Your task to perform on an android device: Go to ESPN.com Image 0: 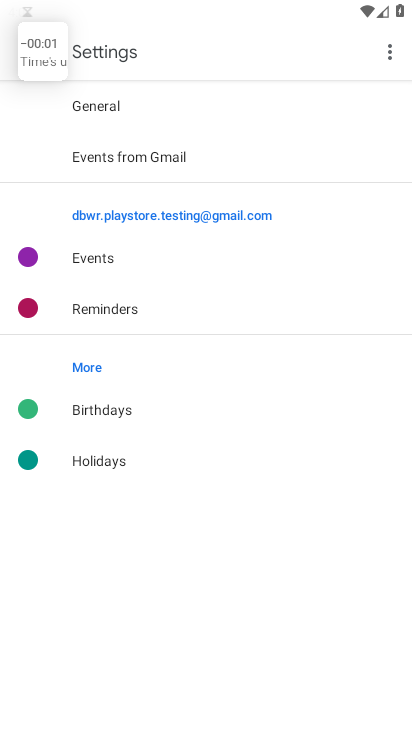
Step 0: drag from (209, 654) to (193, 510)
Your task to perform on an android device: Go to ESPN.com Image 1: 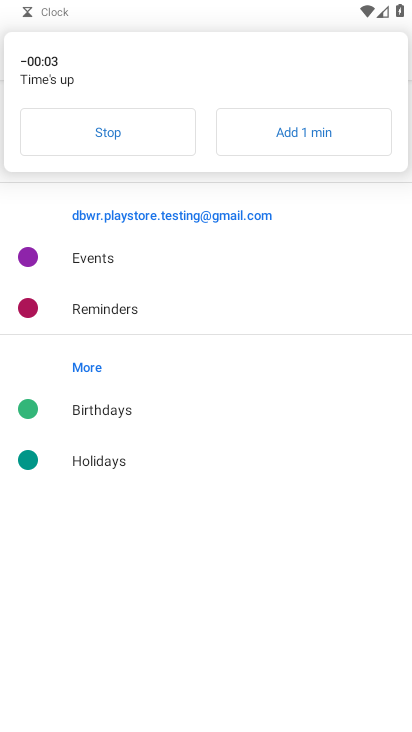
Step 1: press home button
Your task to perform on an android device: Go to ESPN.com Image 2: 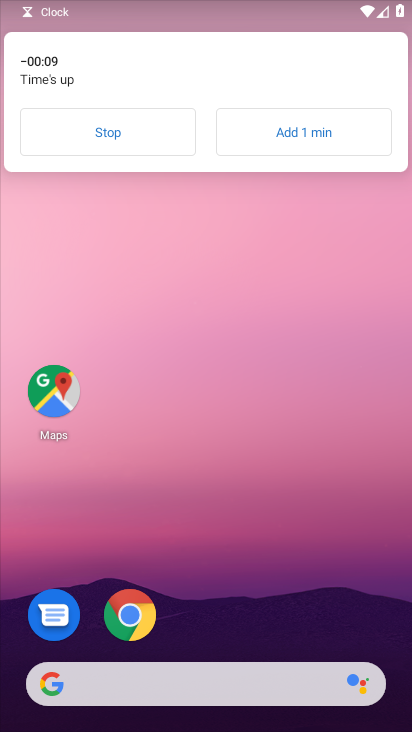
Step 2: click (131, 615)
Your task to perform on an android device: Go to ESPN.com Image 3: 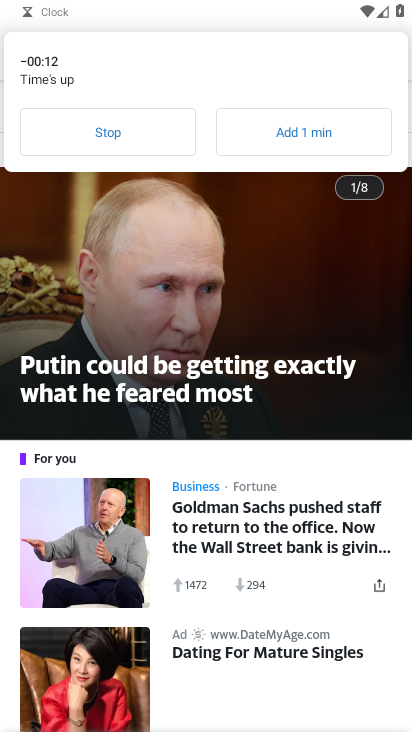
Step 3: click (93, 122)
Your task to perform on an android device: Go to ESPN.com Image 4: 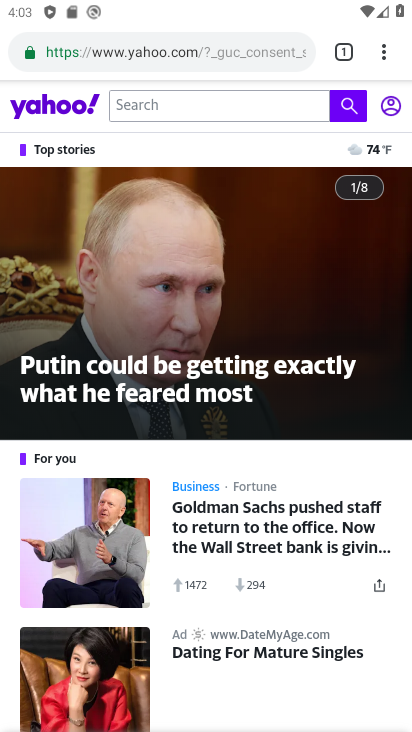
Step 4: click (349, 42)
Your task to perform on an android device: Go to ESPN.com Image 5: 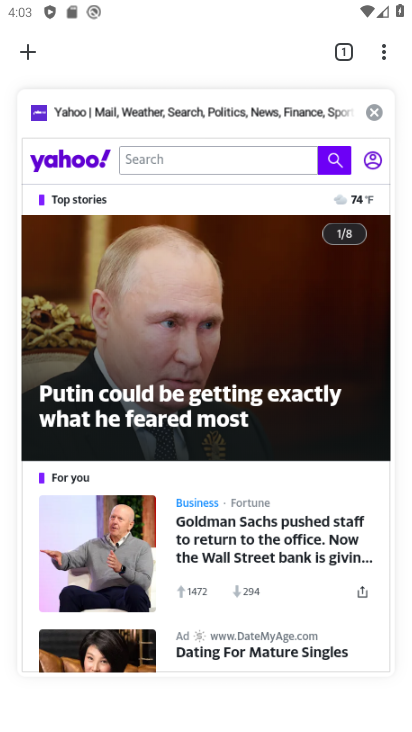
Step 5: click (15, 60)
Your task to perform on an android device: Go to ESPN.com Image 6: 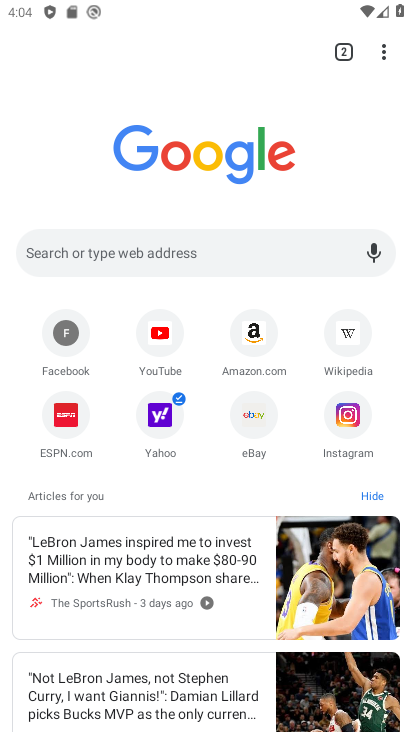
Step 6: click (78, 415)
Your task to perform on an android device: Go to ESPN.com Image 7: 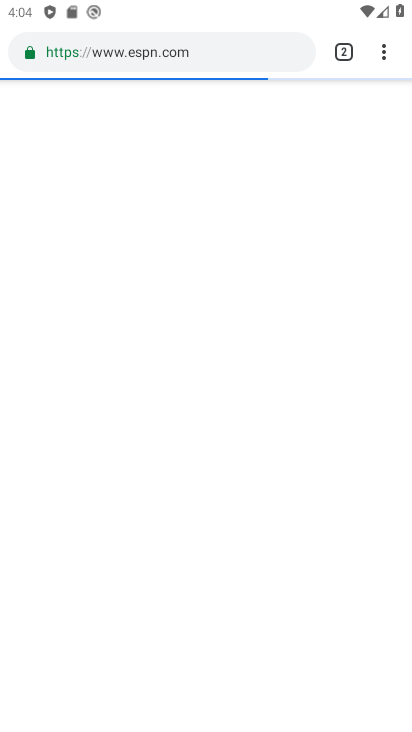
Step 7: task complete